Your task to perform on an android device: set the timer Image 0: 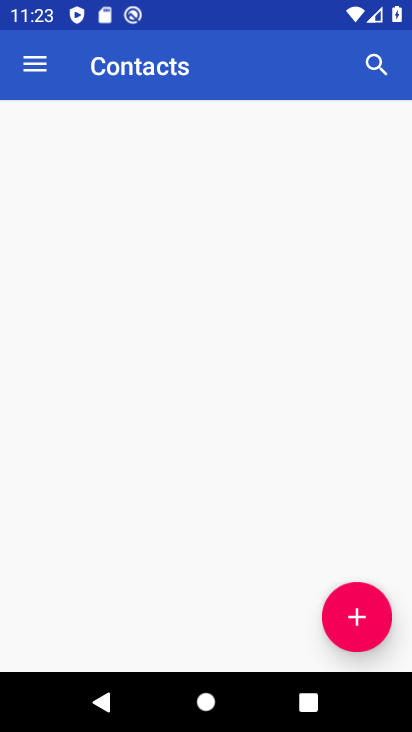
Step 0: press home button
Your task to perform on an android device: set the timer Image 1: 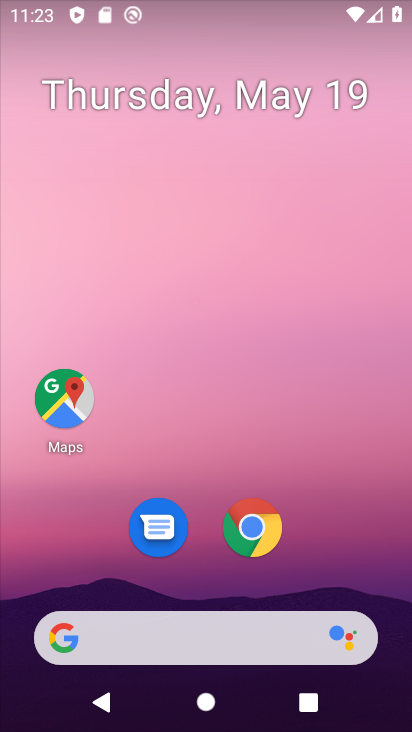
Step 1: drag from (197, 563) to (274, 91)
Your task to perform on an android device: set the timer Image 2: 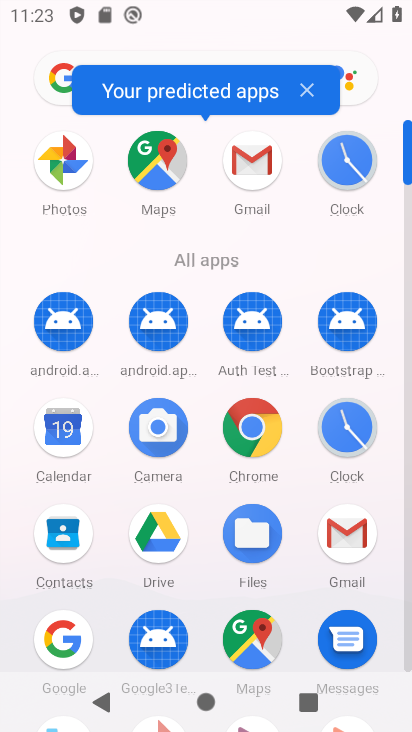
Step 2: click (350, 446)
Your task to perform on an android device: set the timer Image 3: 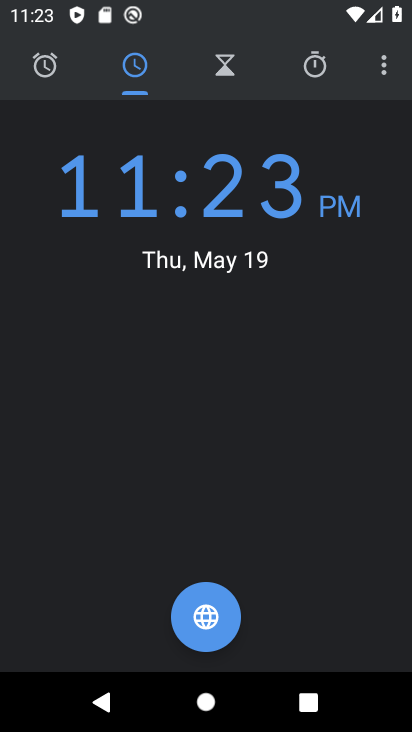
Step 3: click (316, 71)
Your task to perform on an android device: set the timer Image 4: 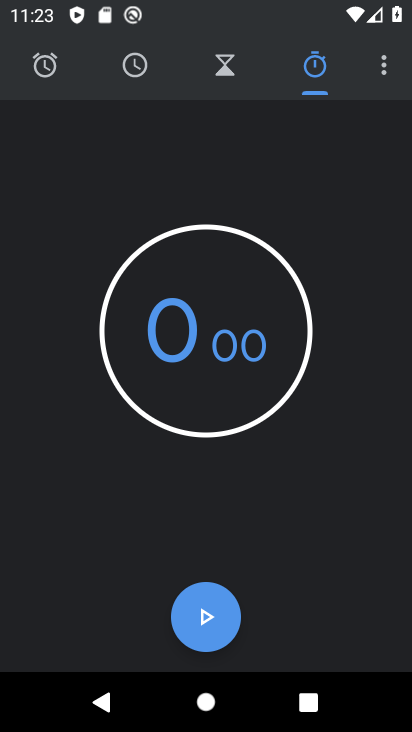
Step 4: click (223, 70)
Your task to perform on an android device: set the timer Image 5: 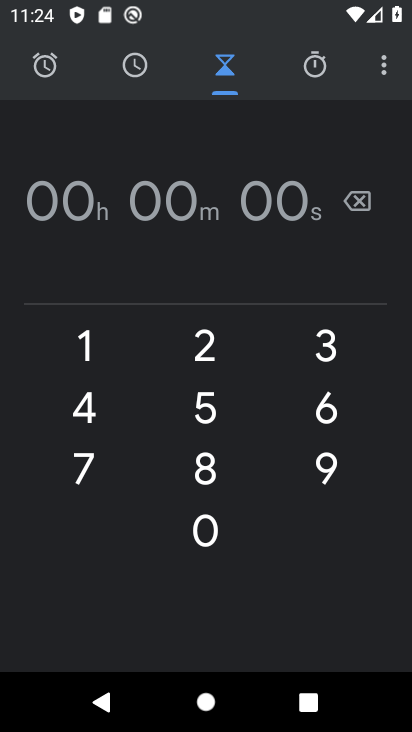
Step 5: click (209, 476)
Your task to perform on an android device: set the timer Image 6: 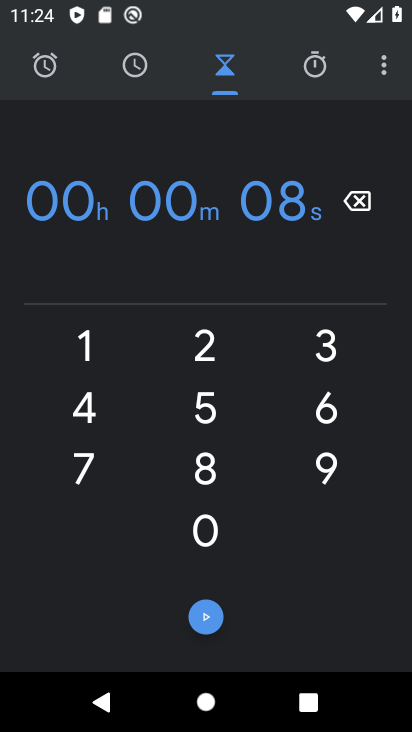
Step 6: click (322, 428)
Your task to perform on an android device: set the timer Image 7: 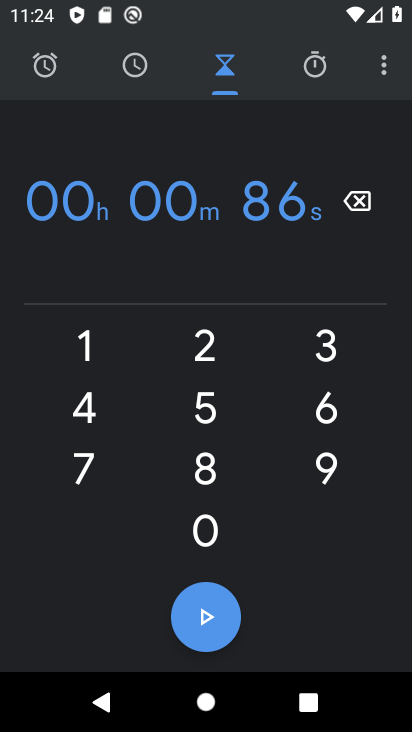
Step 7: click (202, 534)
Your task to perform on an android device: set the timer Image 8: 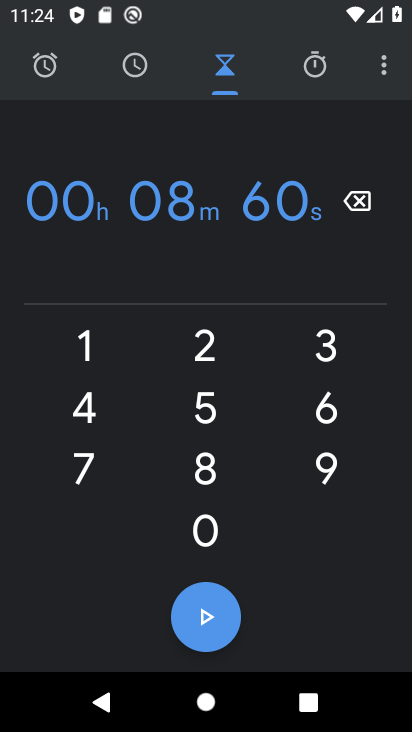
Step 8: click (217, 603)
Your task to perform on an android device: set the timer Image 9: 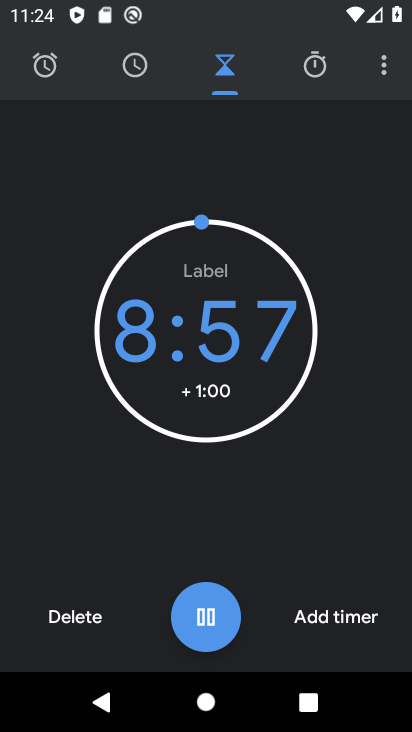
Step 9: task complete